Your task to perform on an android device: Open privacy settings Image 0: 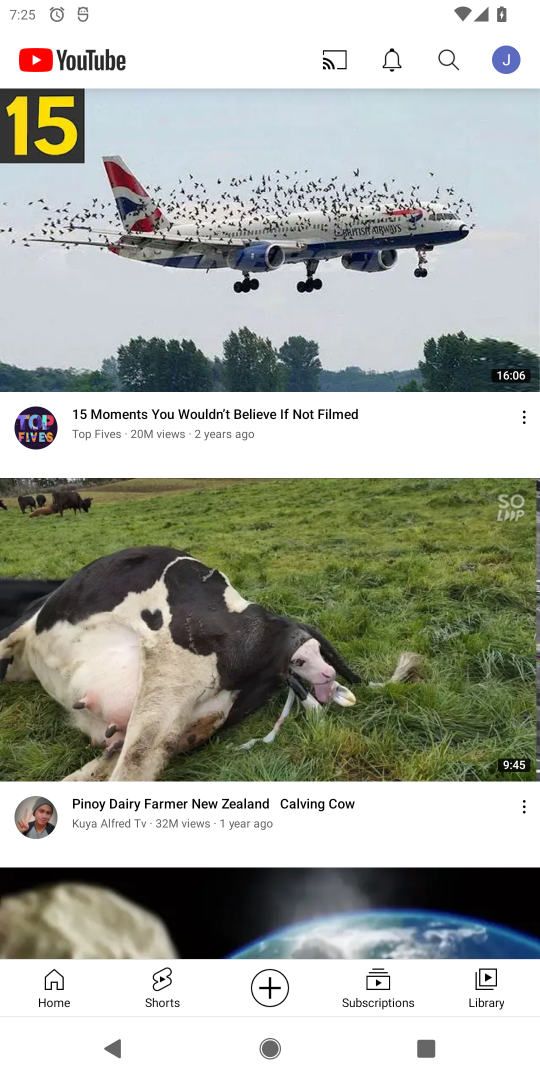
Step 0: press home button
Your task to perform on an android device: Open privacy settings Image 1: 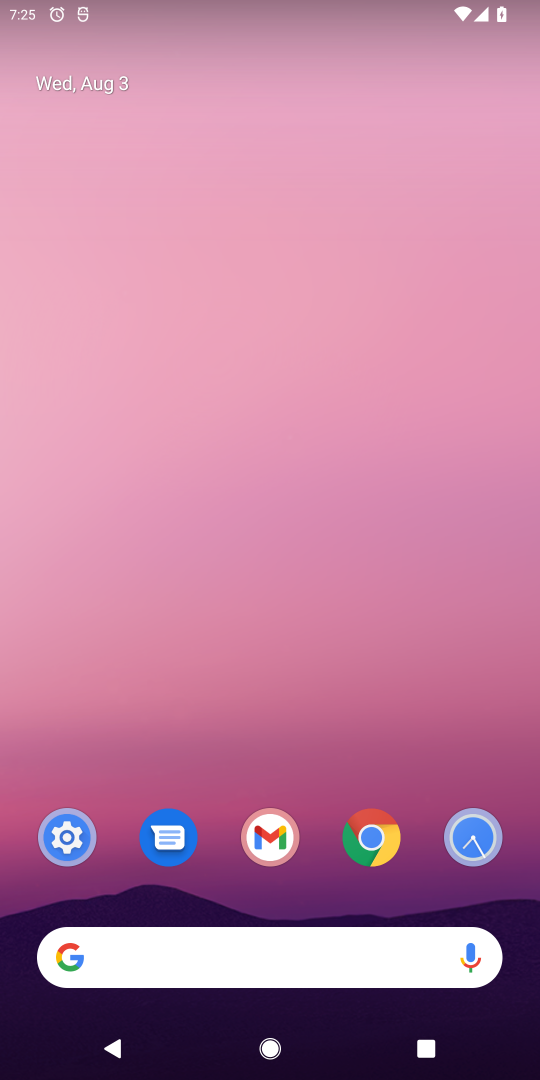
Step 1: drag from (407, 755) to (301, 3)
Your task to perform on an android device: Open privacy settings Image 2: 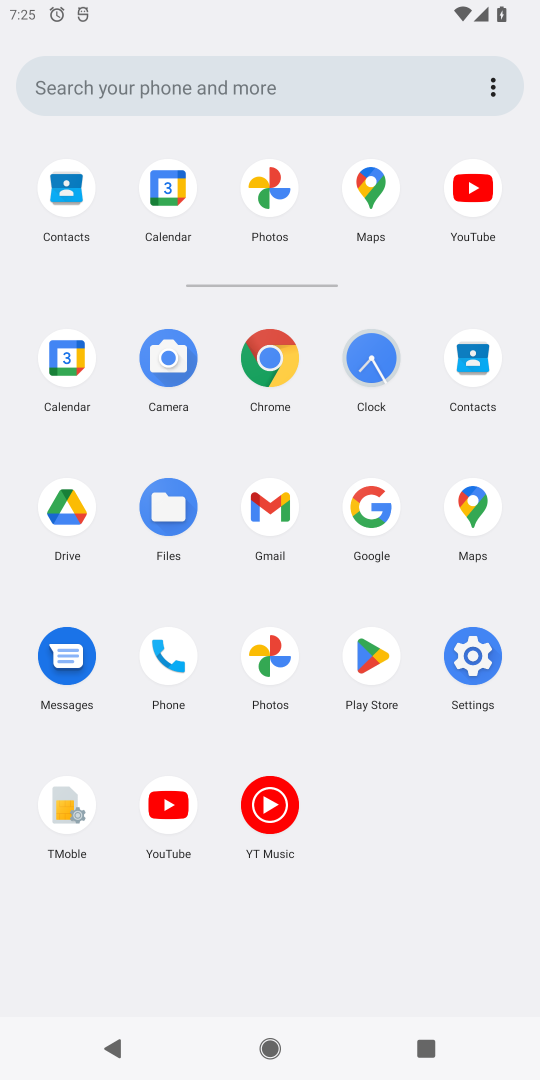
Step 2: click (467, 653)
Your task to perform on an android device: Open privacy settings Image 3: 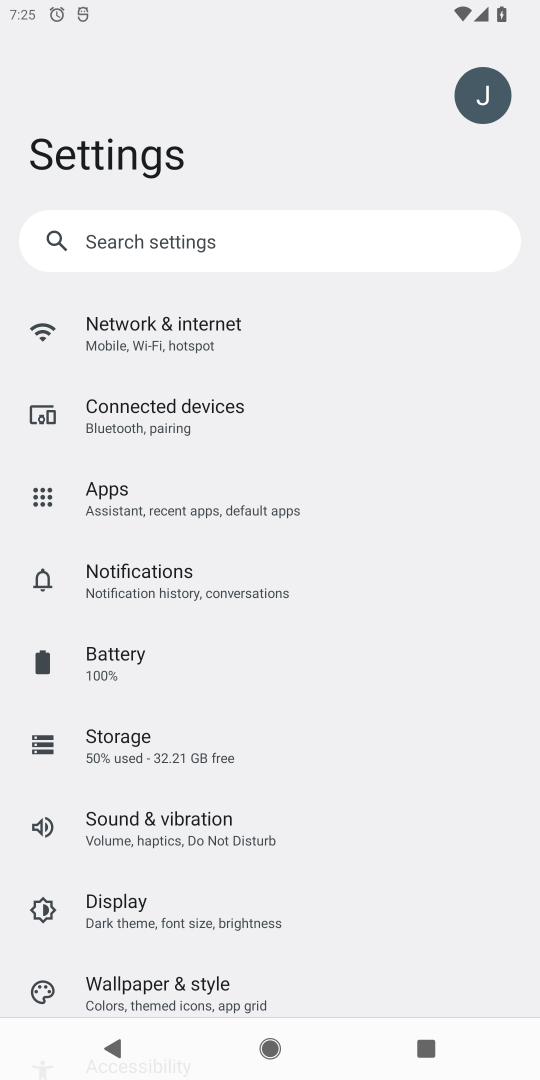
Step 3: drag from (375, 870) to (307, 166)
Your task to perform on an android device: Open privacy settings Image 4: 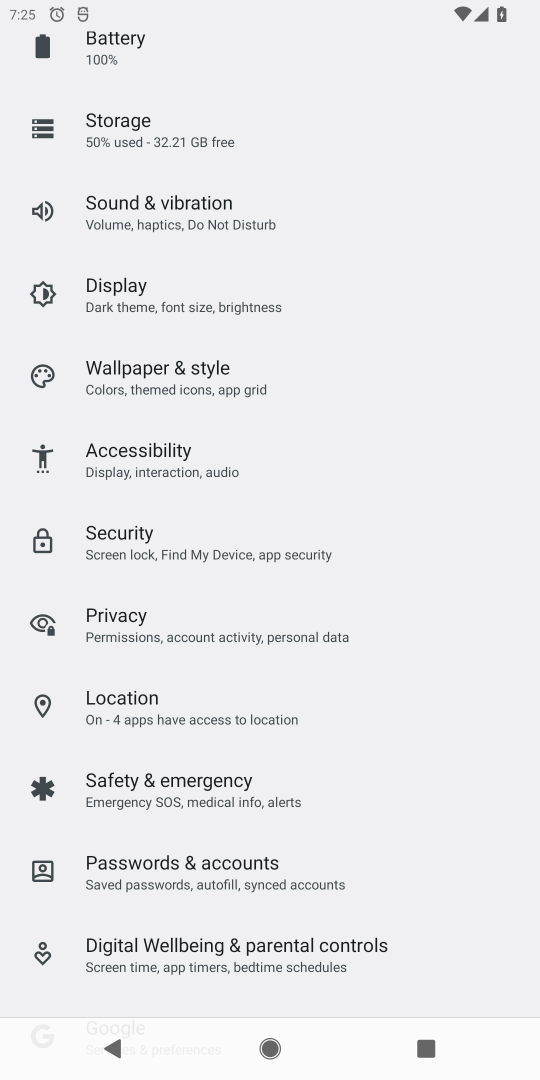
Step 4: drag from (203, 830) to (216, 224)
Your task to perform on an android device: Open privacy settings Image 5: 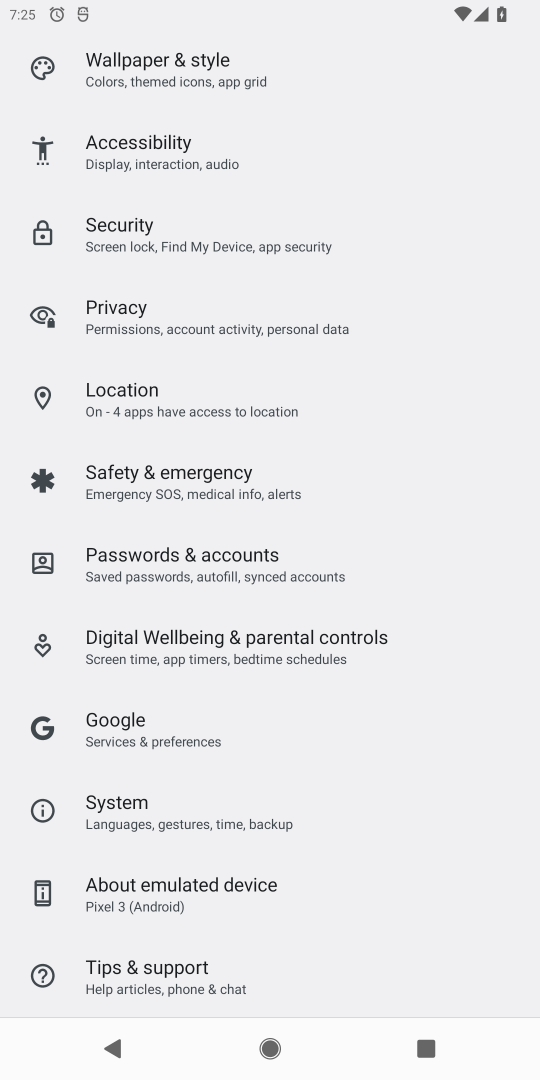
Step 5: click (140, 317)
Your task to perform on an android device: Open privacy settings Image 6: 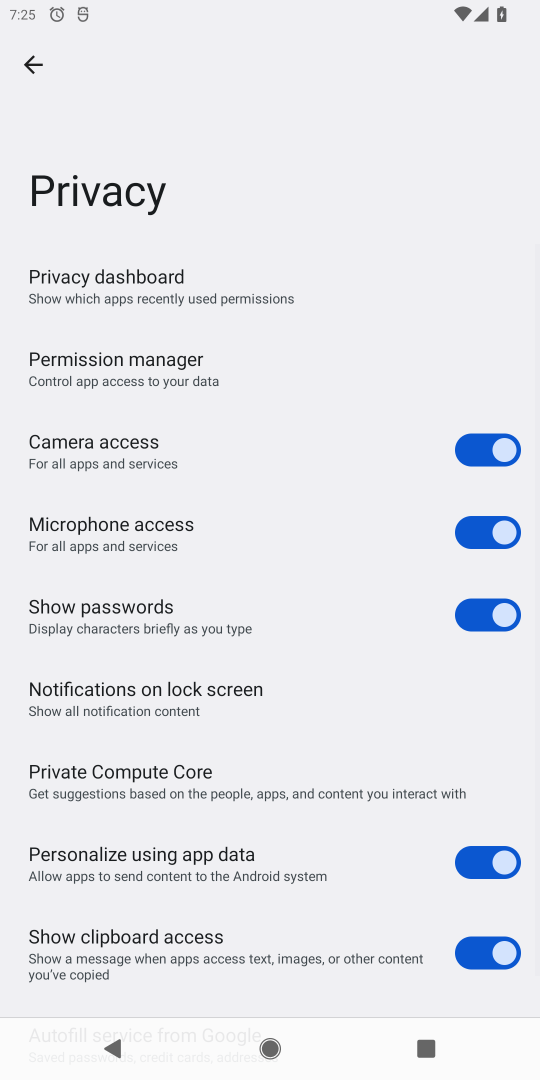
Step 6: task complete